Your task to perform on an android device: toggle improve location accuracy Image 0: 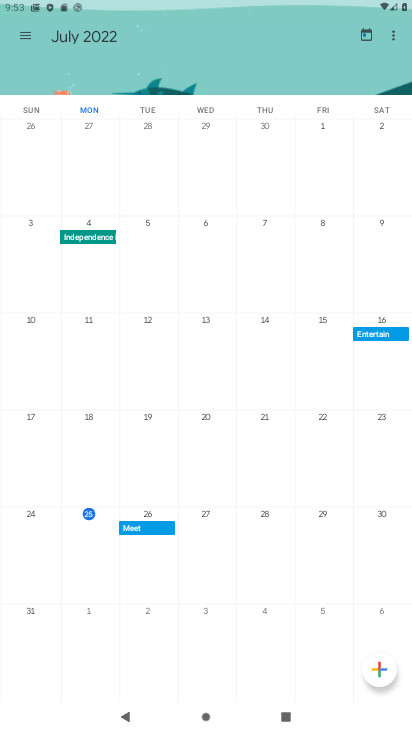
Step 0: press home button
Your task to perform on an android device: toggle improve location accuracy Image 1: 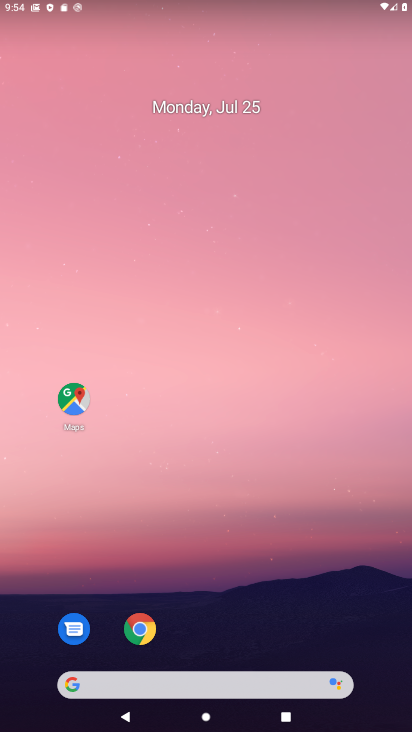
Step 1: drag from (211, 579) to (240, 0)
Your task to perform on an android device: toggle improve location accuracy Image 2: 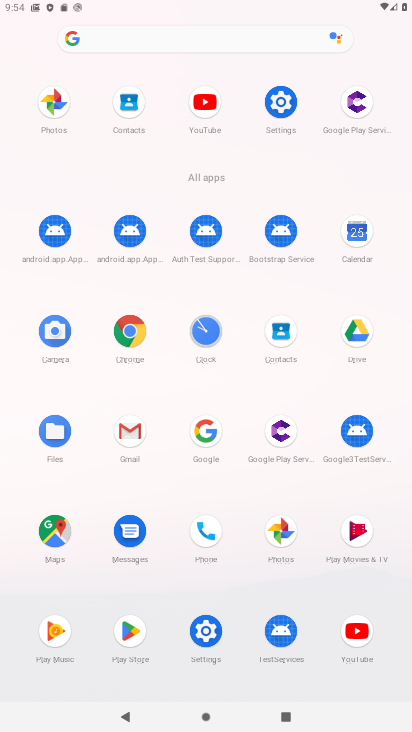
Step 2: click (276, 105)
Your task to perform on an android device: toggle improve location accuracy Image 3: 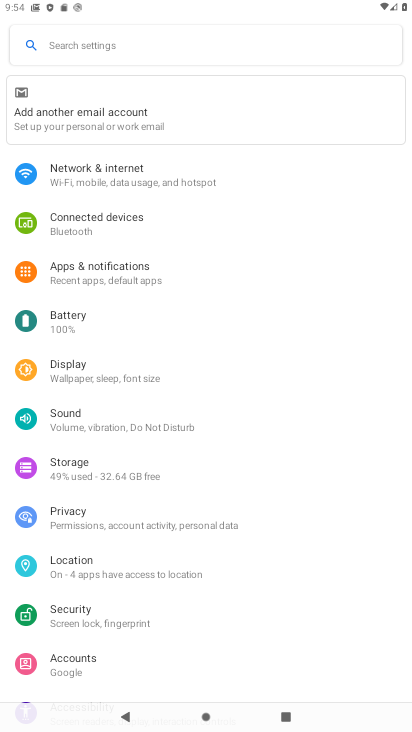
Step 3: click (60, 560)
Your task to perform on an android device: toggle improve location accuracy Image 4: 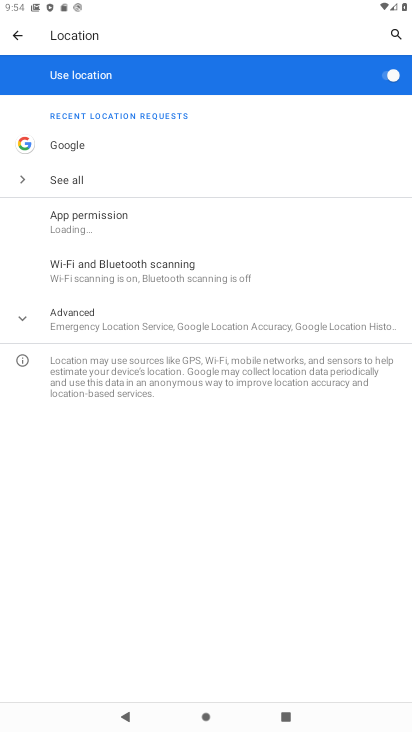
Step 4: click (20, 326)
Your task to perform on an android device: toggle improve location accuracy Image 5: 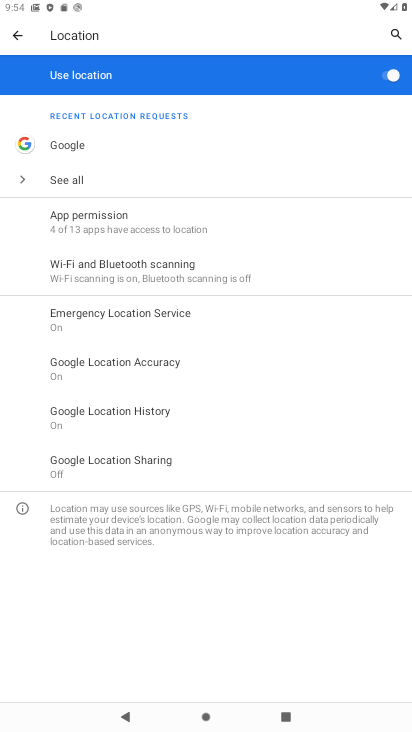
Step 5: click (71, 365)
Your task to perform on an android device: toggle improve location accuracy Image 6: 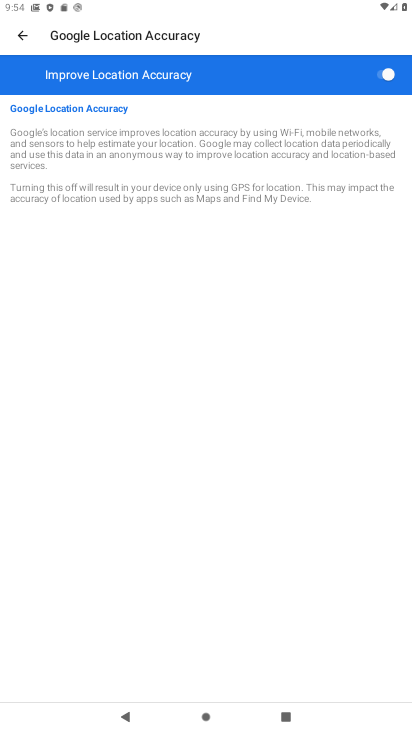
Step 6: click (393, 76)
Your task to perform on an android device: toggle improve location accuracy Image 7: 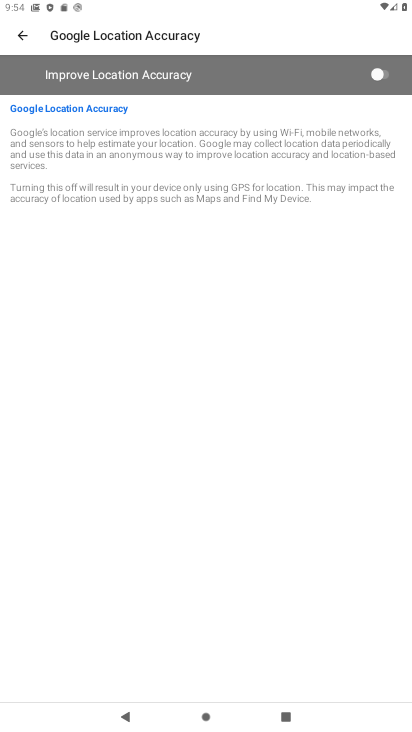
Step 7: task complete